Your task to perform on an android device: turn off airplane mode Image 0: 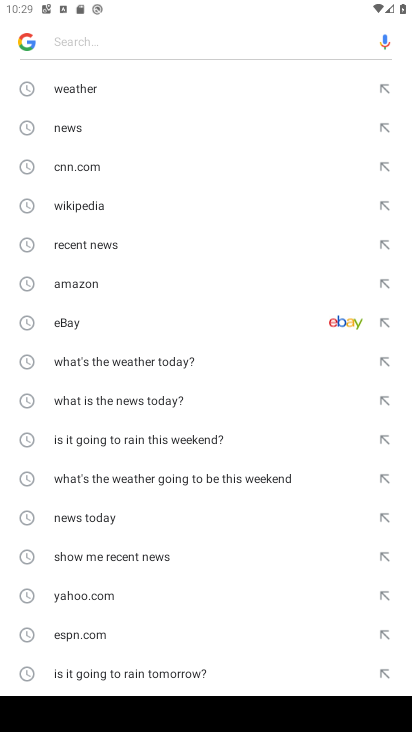
Step 0: press home button
Your task to perform on an android device: turn off airplane mode Image 1: 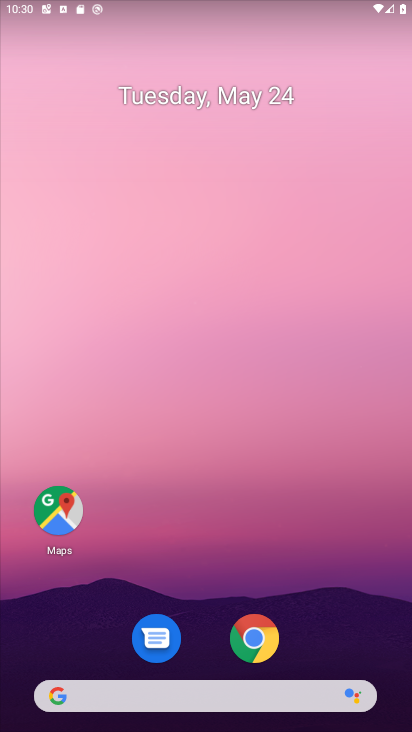
Step 1: drag from (205, 710) to (257, 5)
Your task to perform on an android device: turn off airplane mode Image 2: 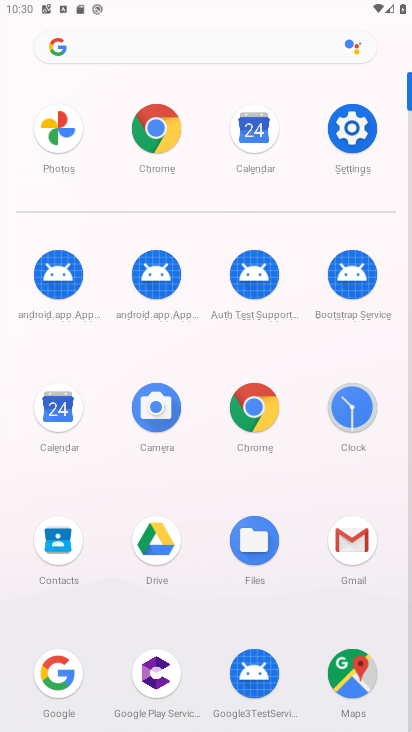
Step 2: click (357, 136)
Your task to perform on an android device: turn off airplane mode Image 3: 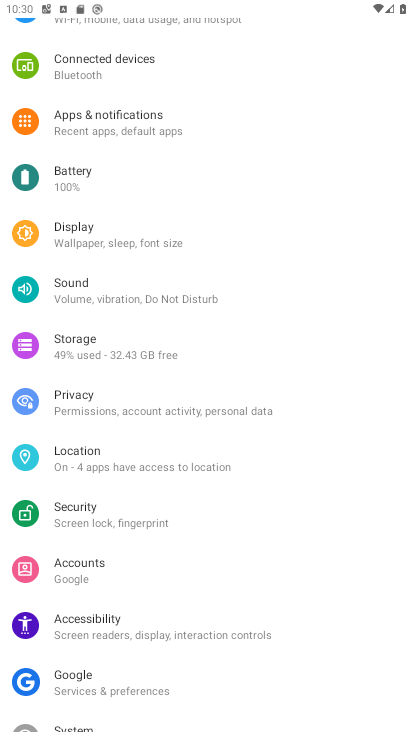
Step 3: drag from (273, 112) to (290, 632)
Your task to perform on an android device: turn off airplane mode Image 4: 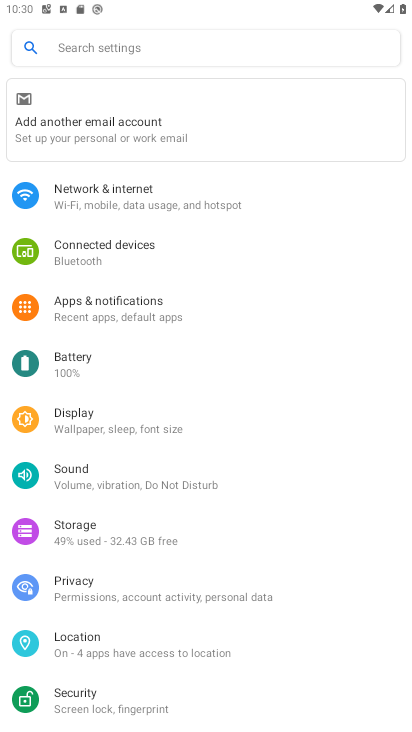
Step 4: click (230, 205)
Your task to perform on an android device: turn off airplane mode Image 5: 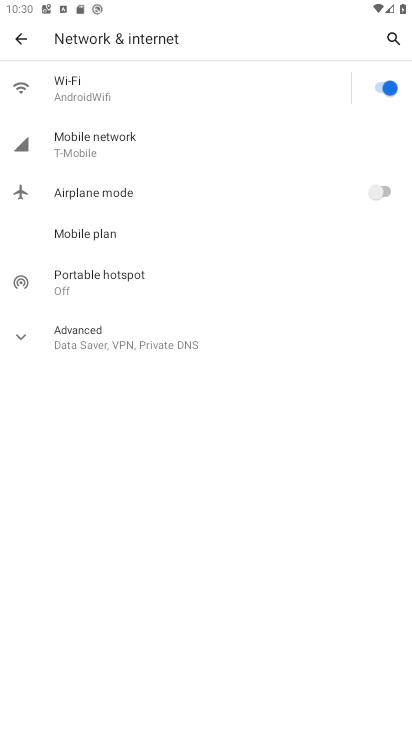
Step 5: task complete